Your task to perform on an android device: Open calendar and show me the first week of next month Image 0: 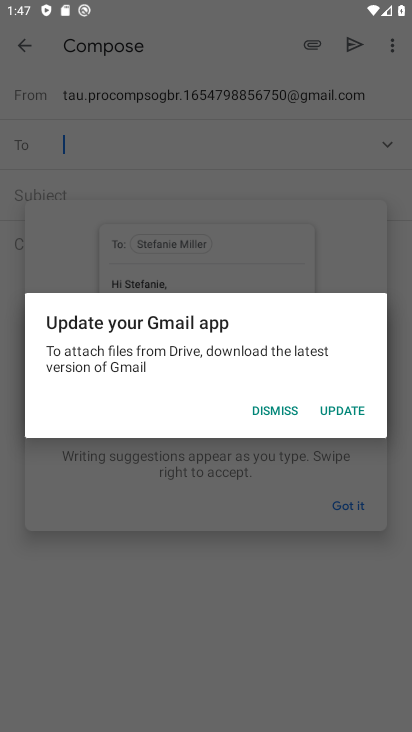
Step 0: press home button
Your task to perform on an android device: Open calendar and show me the first week of next month Image 1: 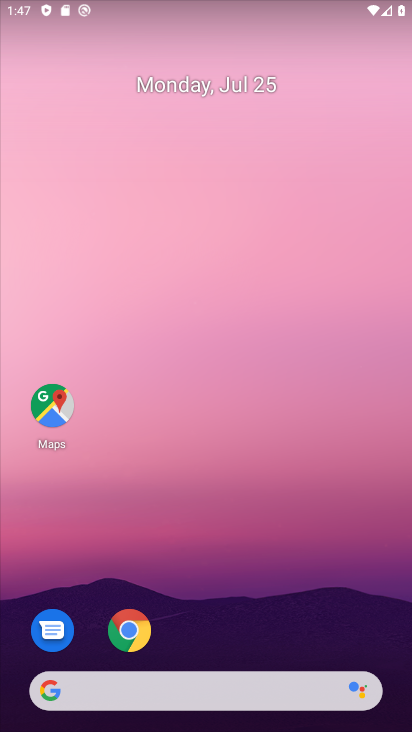
Step 1: drag from (264, 643) to (217, 35)
Your task to perform on an android device: Open calendar and show me the first week of next month Image 2: 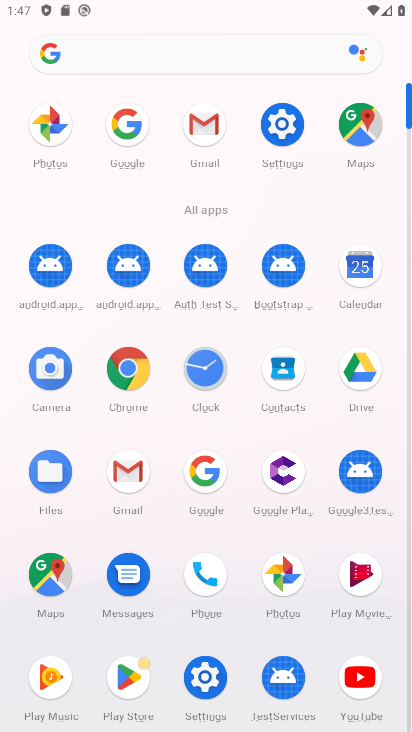
Step 2: click (354, 264)
Your task to perform on an android device: Open calendar and show me the first week of next month Image 3: 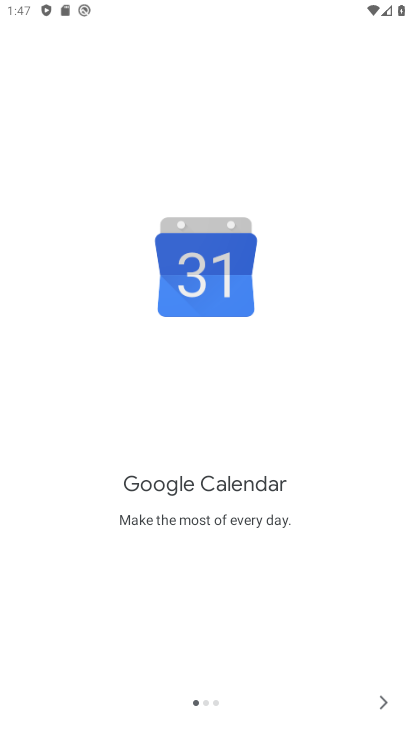
Step 3: click (375, 701)
Your task to perform on an android device: Open calendar and show me the first week of next month Image 4: 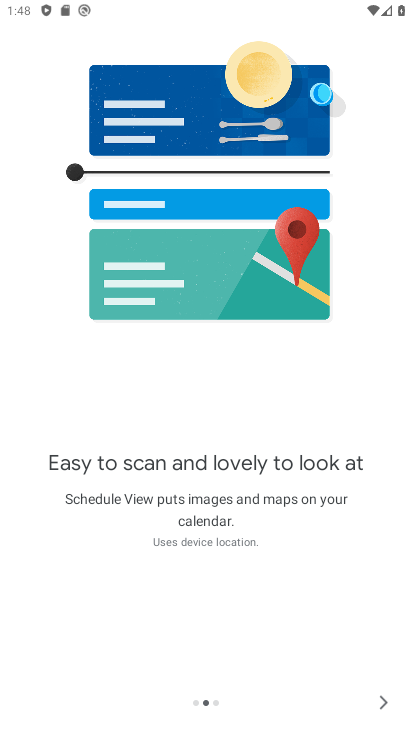
Step 4: click (375, 701)
Your task to perform on an android device: Open calendar and show me the first week of next month Image 5: 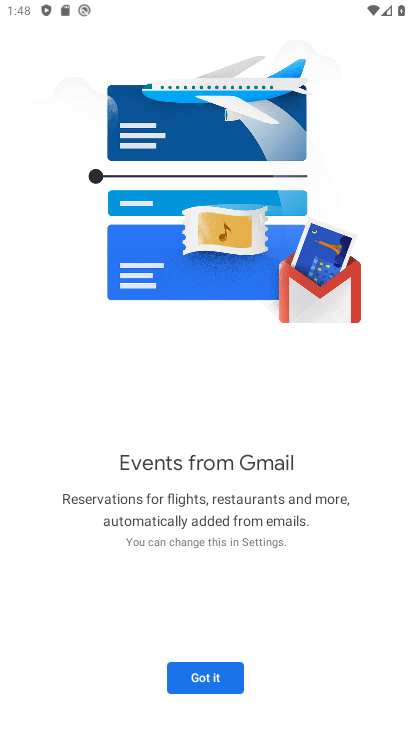
Step 5: click (214, 689)
Your task to perform on an android device: Open calendar and show me the first week of next month Image 6: 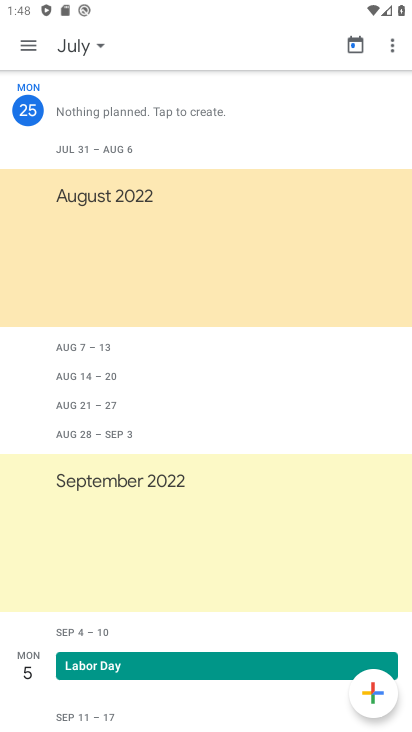
Step 6: click (28, 38)
Your task to perform on an android device: Open calendar and show me the first week of next month Image 7: 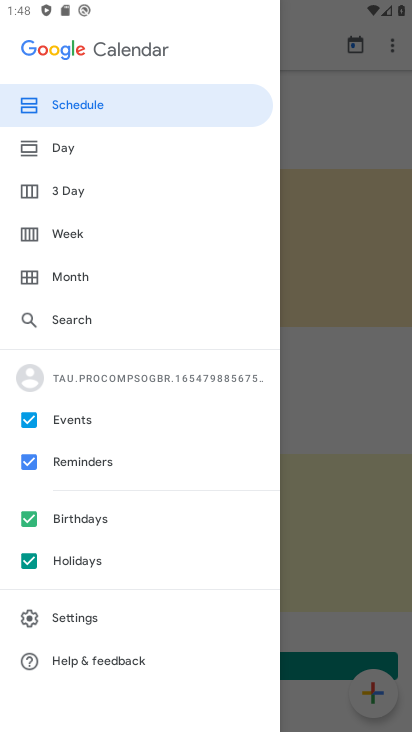
Step 7: click (77, 234)
Your task to perform on an android device: Open calendar and show me the first week of next month Image 8: 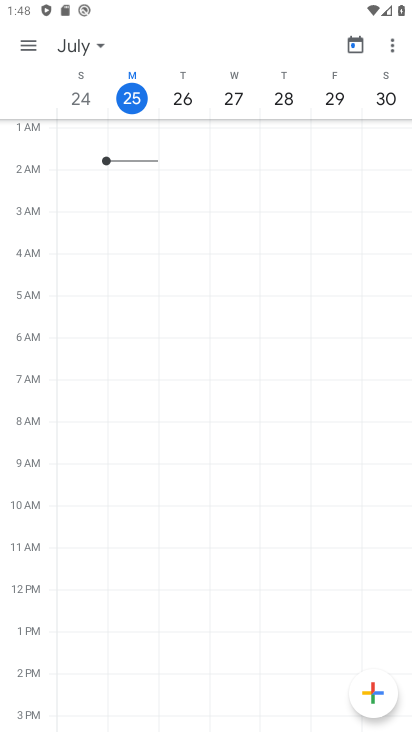
Step 8: click (98, 31)
Your task to perform on an android device: Open calendar and show me the first week of next month Image 9: 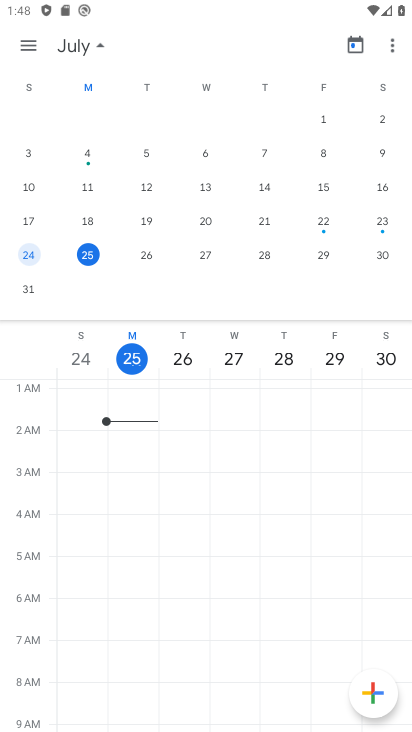
Step 9: drag from (374, 221) to (108, 216)
Your task to perform on an android device: Open calendar and show me the first week of next month Image 10: 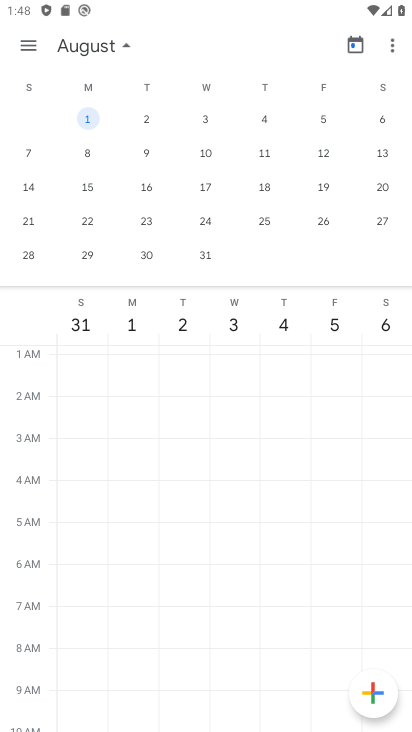
Step 10: click (144, 120)
Your task to perform on an android device: Open calendar and show me the first week of next month Image 11: 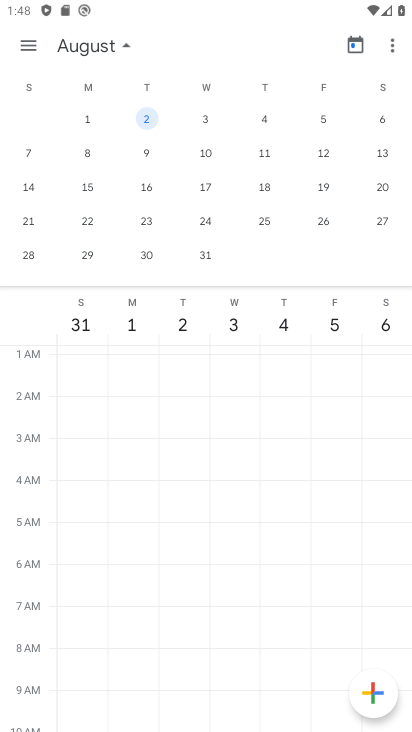
Step 11: task complete